Your task to perform on an android device: set the timer Image 0: 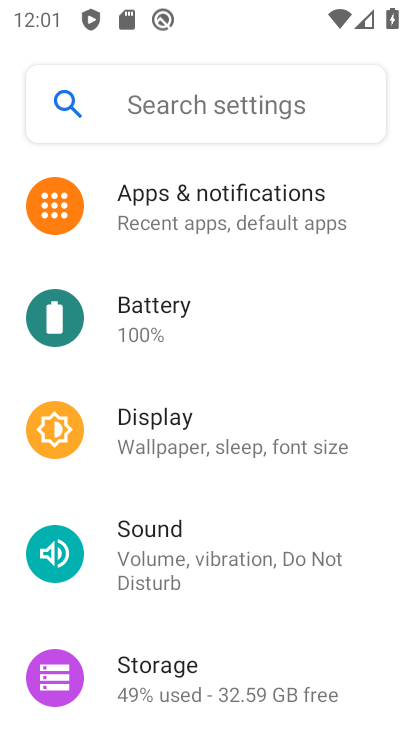
Step 0: press home button
Your task to perform on an android device: set the timer Image 1: 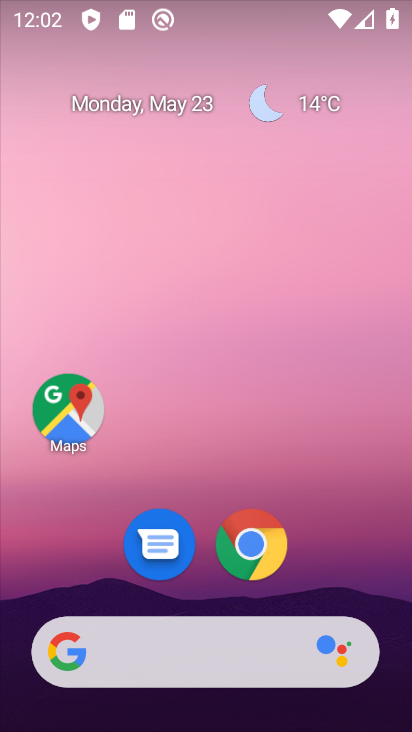
Step 1: drag from (336, 557) to (290, 49)
Your task to perform on an android device: set the timer Image 2: 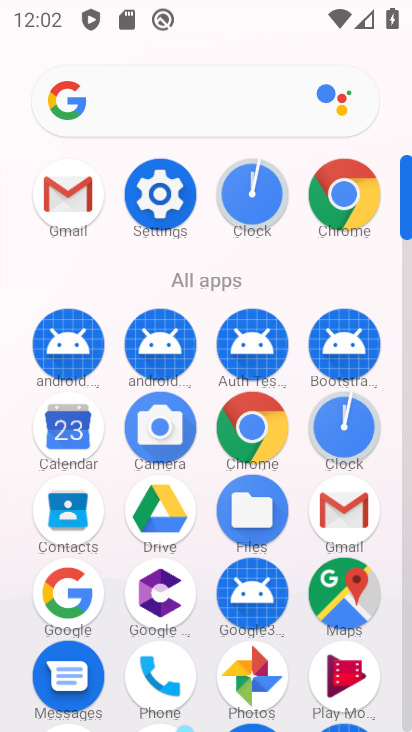
Step 2: click (344, 433)
Your task to perform on an android device: set the timer Image 3: 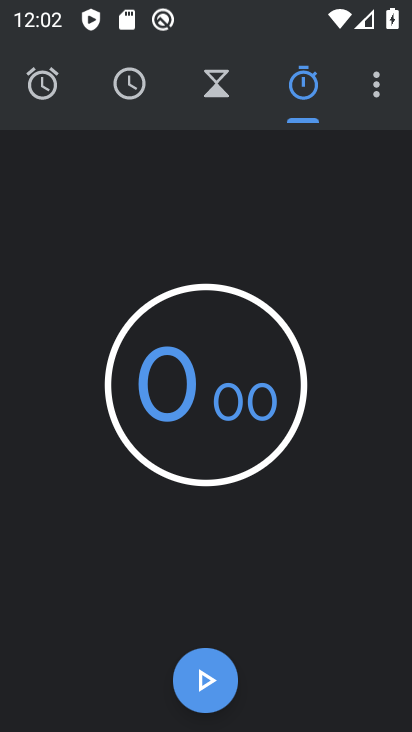
Step 3: click (217, 95)
Your task to perform on an android device: set the timer Image 4: 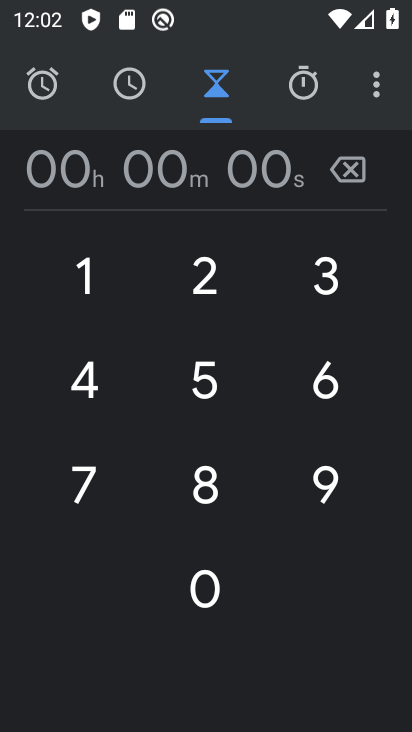
Step 4: click (210, 381)
Your task to perform on an android device: set the timer Image 5: 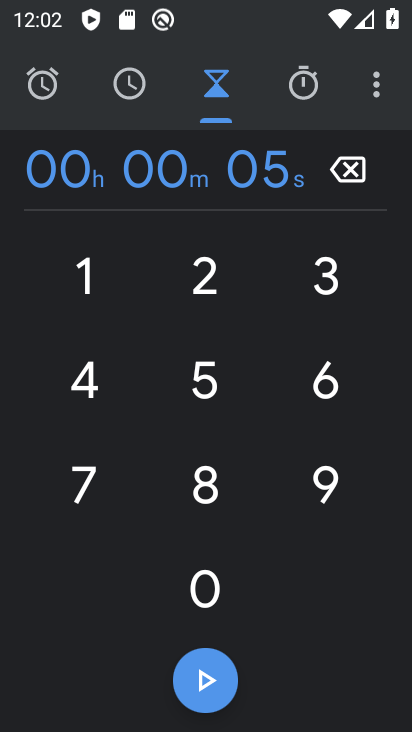
Step 5: task complete